Your task to perform on an android device: Search for seafood restaurants on Google Maps Image 0: 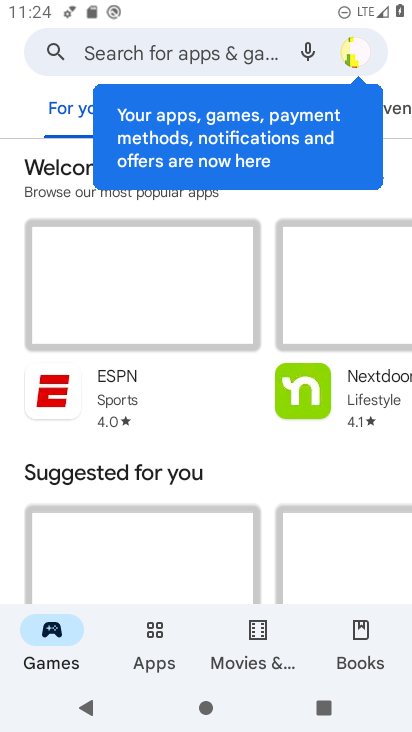
Step 0: press home button
Your task to perform on an android device: Search for seafood restaurants on Google Maps Image 1: 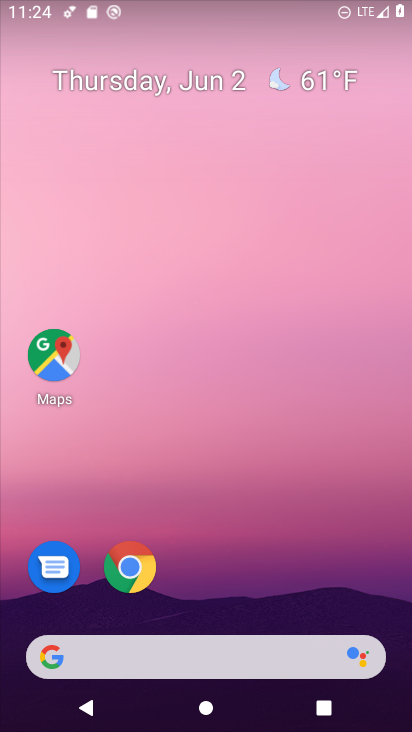
Step 1: click (52, 356)
Your task to perform on an android device: Search for seafood restaurants on Google Maps Image 2: 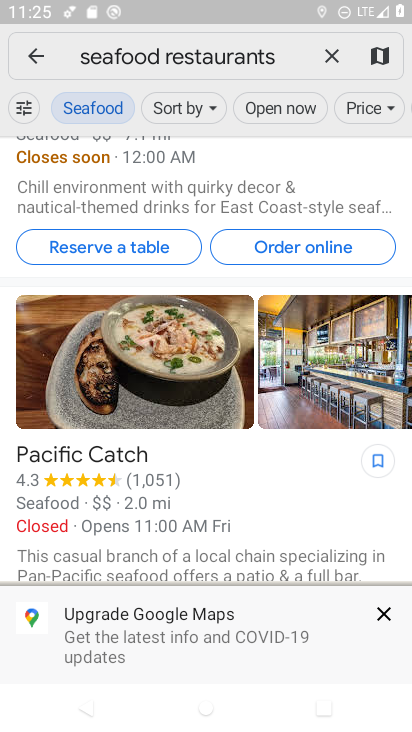
Step 2: task complete